Your task to perform on an android device: toggle priority inbox in the gmail app Image 0: 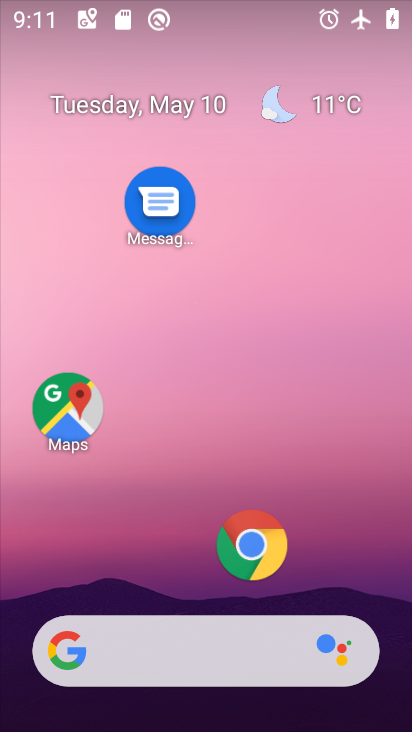
Step 0: press home button
Your task to perform on an android device: toggle priority inbox in the gmail app Image 1: 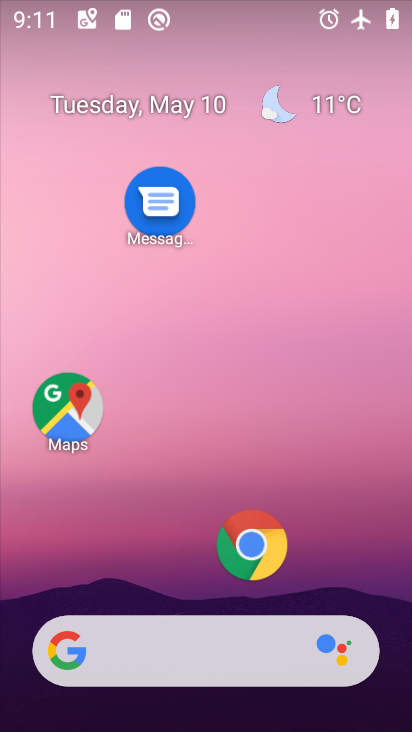
Step 1: drag from (202, 579) to (250, 25)
Your task to perform on an android device: toggle priority inbox in the gmail app Image 2: 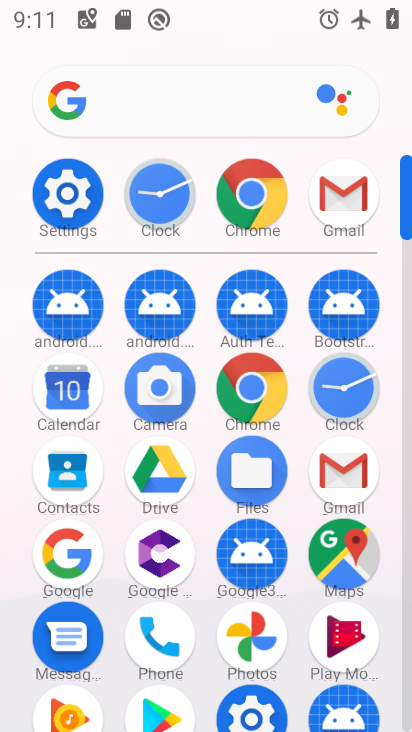
Step 2: click (343, 181)
Your task to perform on an android device: toggle priority inbox in the gmail app Image 3: 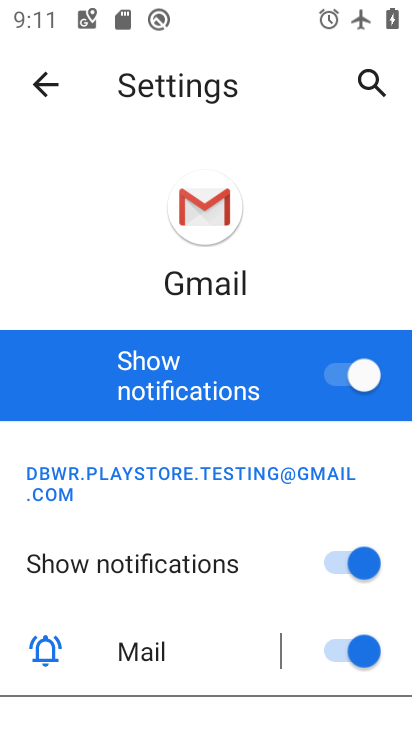
Step 3: click (52, 74)
Your task to perform on an android device: toggle priority inbox in the gmail app Image 4: 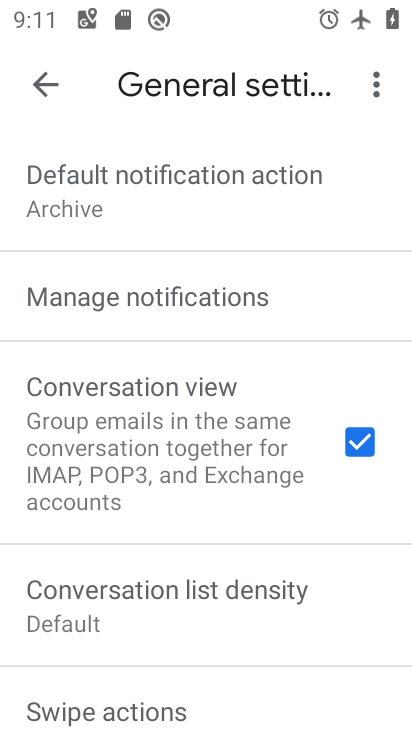
Step 4: click (51, 74)
Your task to perform on an android device: toggle priority inbox in the gmail app Image 5: 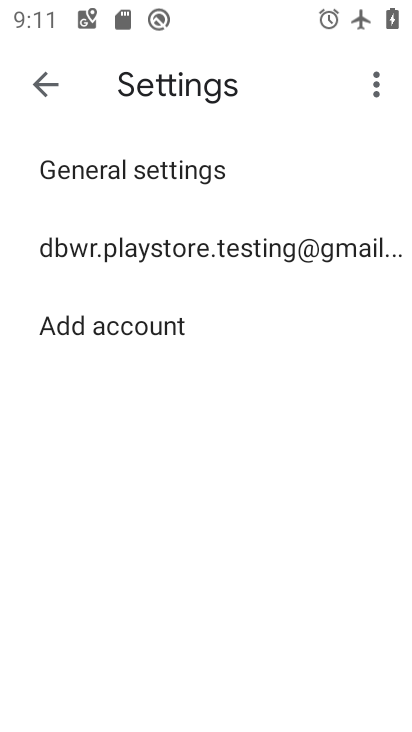
Step 5: click (193, 245)
Your task to perform on an android device: toggle priority inbox in the gmail app Image 6: 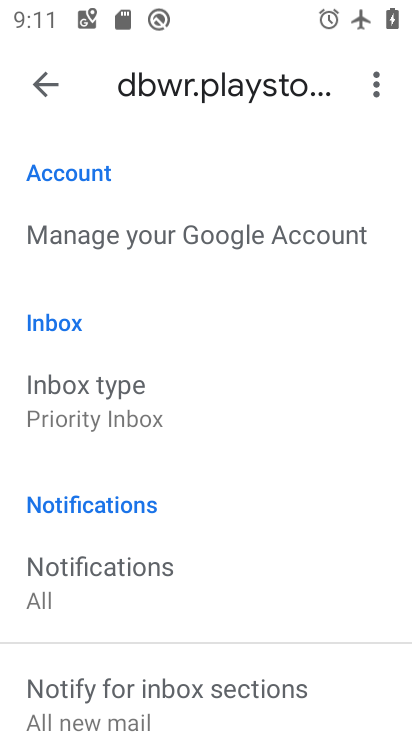
Step 6: click (167, 393)
Your task to perform on an android device: toggle priority inbox in the gmail app Image 7: 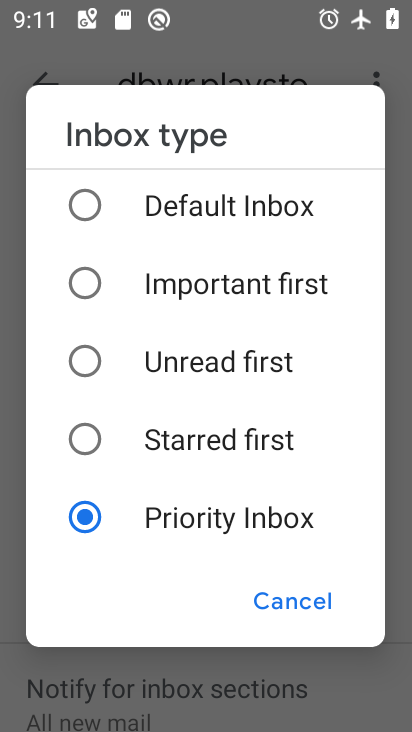
Step 7: click (189, 515)
Your task to perform on an android device: toggle priority inbox in the gmail app Image 8: 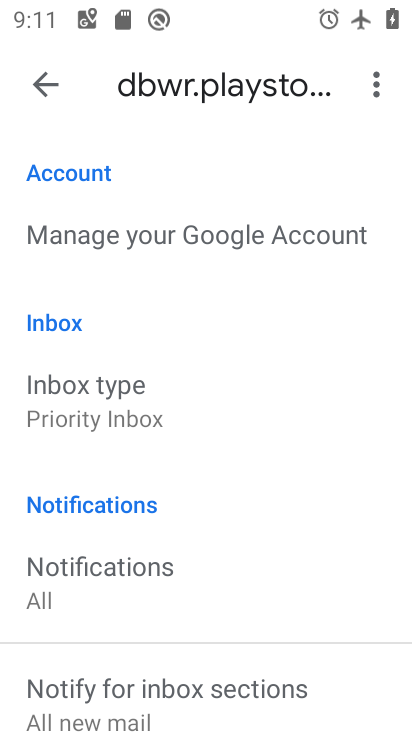
Step 8: task complete